Your task to perform on an android device: delete a single message in the gmail app Image 0: 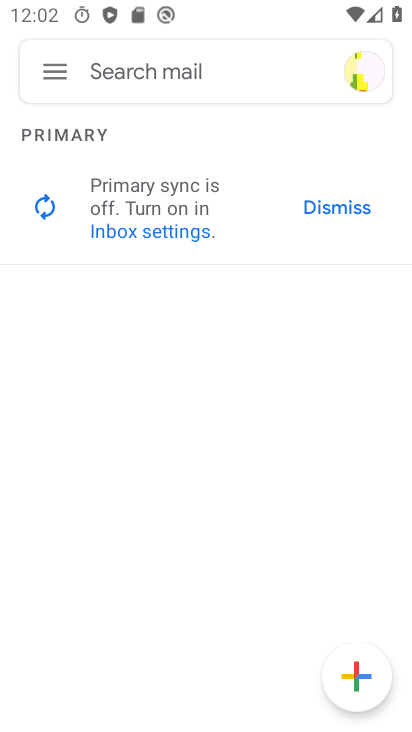
Step 0: click (54, 66)
Your task to perform on an android device: delete a single message in the gmail app Image 1: 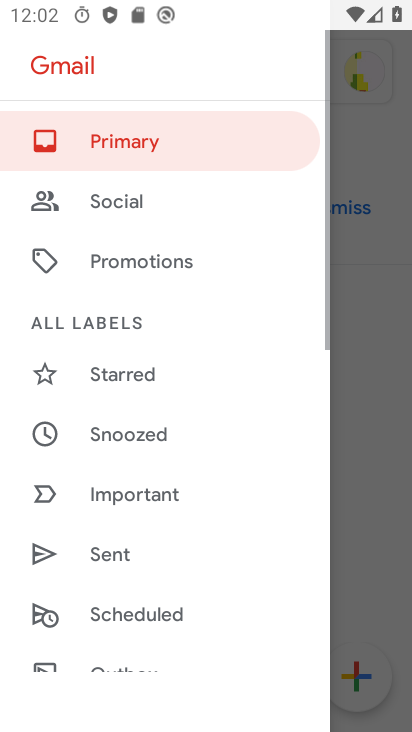
Step 1: drag from (139, 496) to (199, 142)
Your task to perform on an android device: delete a single message in the gmail app Image 2: 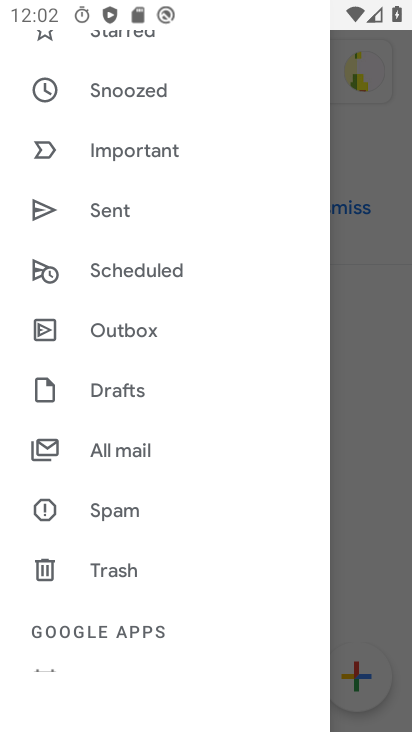
Step 2: click (120, 453)
Your task to perform on an android device: delete a single message in the gmail app Image 3: 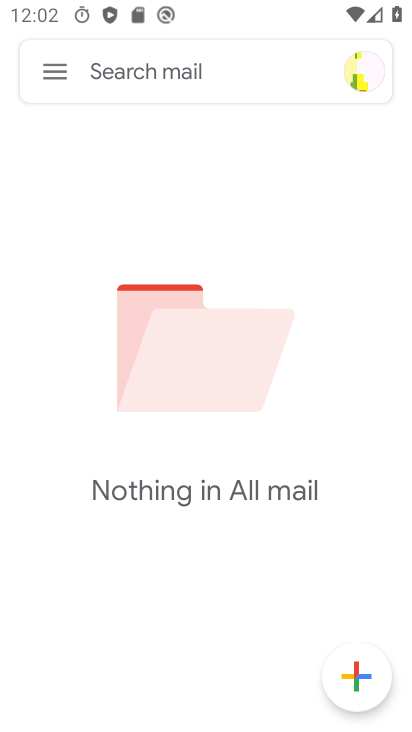
Step 3: task complete